Your task to perform on an android device: When is my next meeting? Image 0: 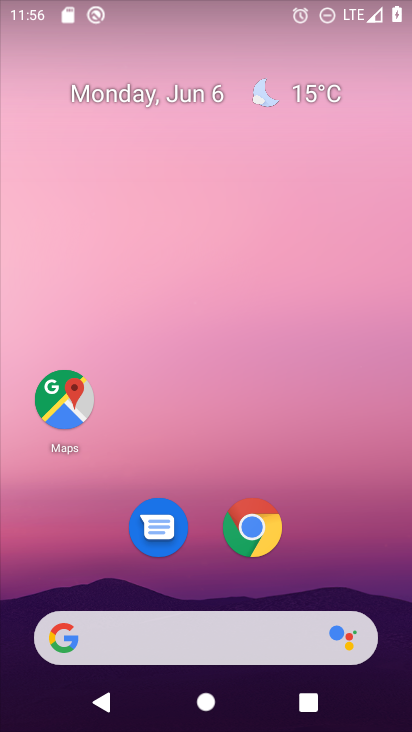
Step 0: drag from (347, 516) to (371, 116)
Your task to perform on an android device: When is my next meeting? Image 1: 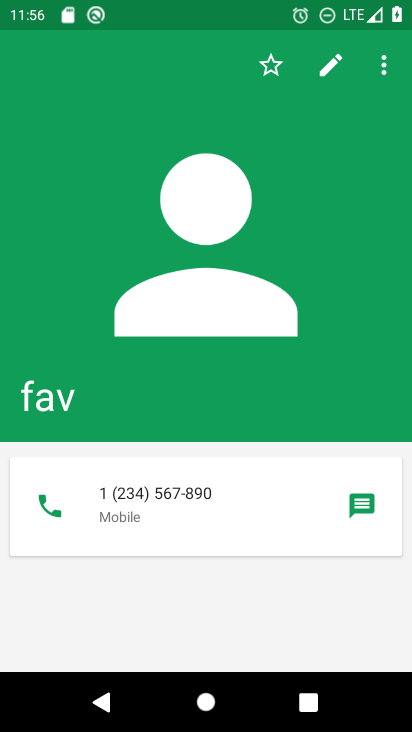
Step 1: press home button
Your task to perform on an android device: When is my next meeting? Image 2: 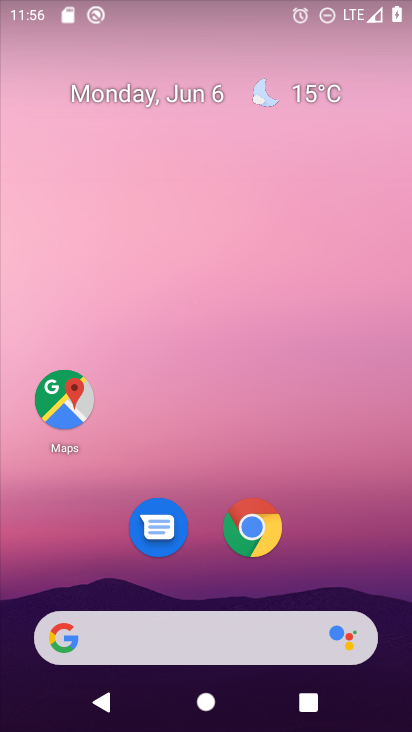
Step 2: drag from (335, 552) to (334, 116)
Your task to perform on an android device: When is my next meeting? Image 3: 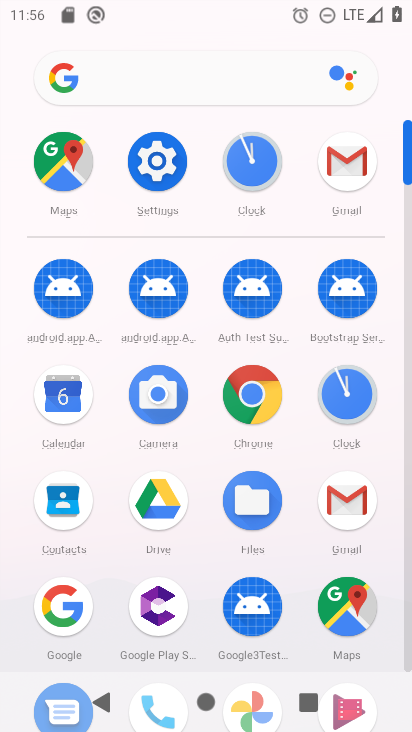
Step 3: click (58, 403)
Your task to perform on an android device: When is my next meeting? Image 4: 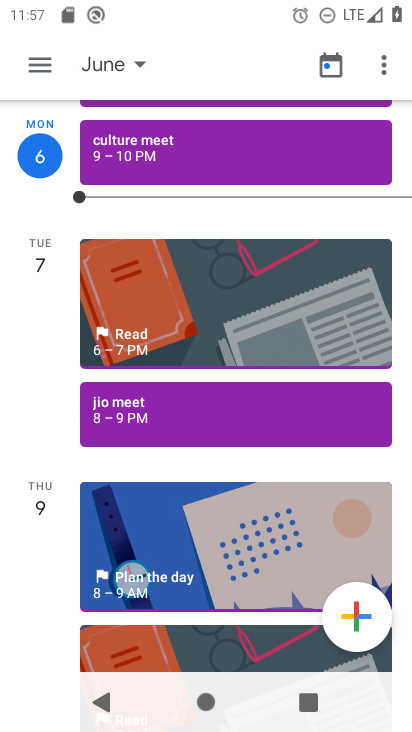
Step 4: drag from (292, 409) to (266, 235)
Your task to perform on an android device: When is my next meeting? Image 5: 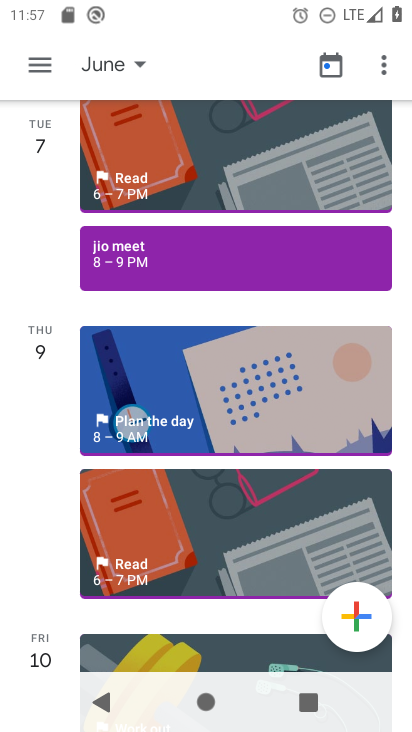
Step 5: click (195, 253)
Your task to perform on an android device: When is my next meeting? Image 6: 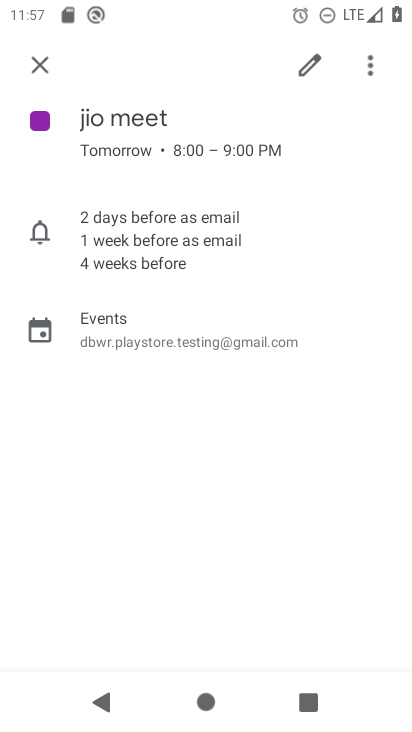
Step 6: task complete